Your task to perform on an android device: Open wifi settings Image 0: 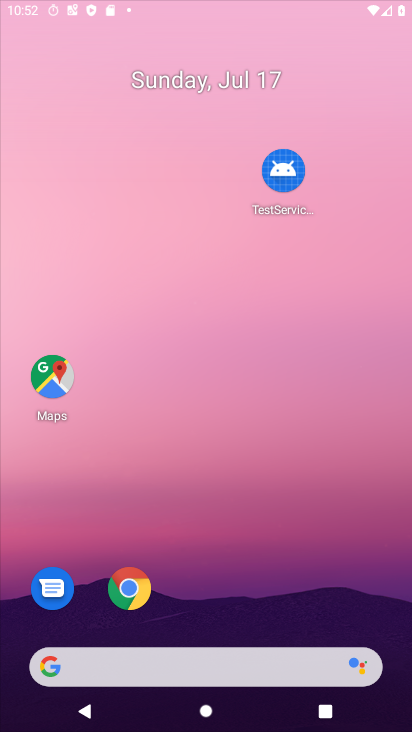
Step 0: press home button
Your task to perform on an android device: Open wifi settings Image 1: 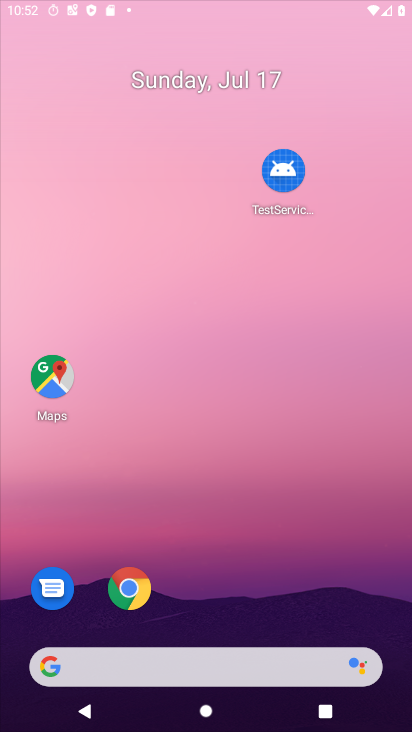
Step 1: click (245, 51)
Your task to perform on an android device: Open wifi settings Image 2: 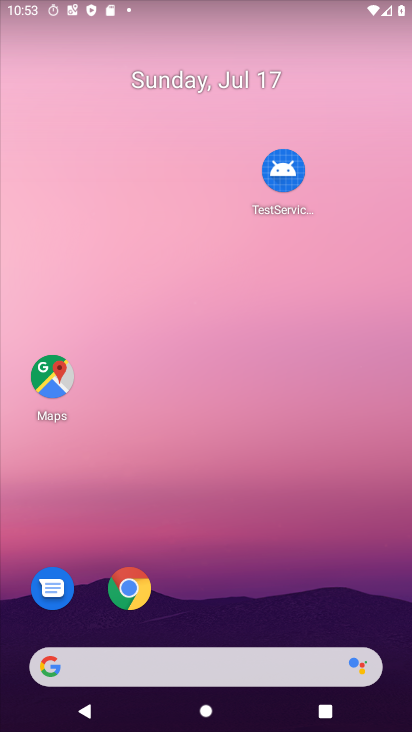
Step 2: drag from (241, 678) to (211, 2)
Your task to perform on an android device: Open wifi settings Image 3: 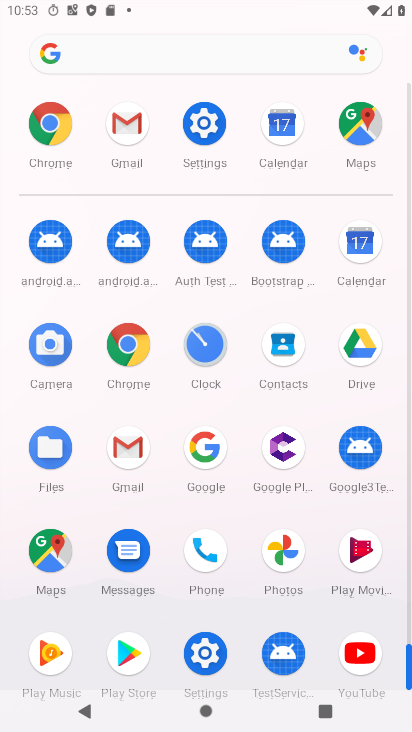
Step 3: click (212, 139)
Your task to perform on an android device: Open wifi settings Image 4: 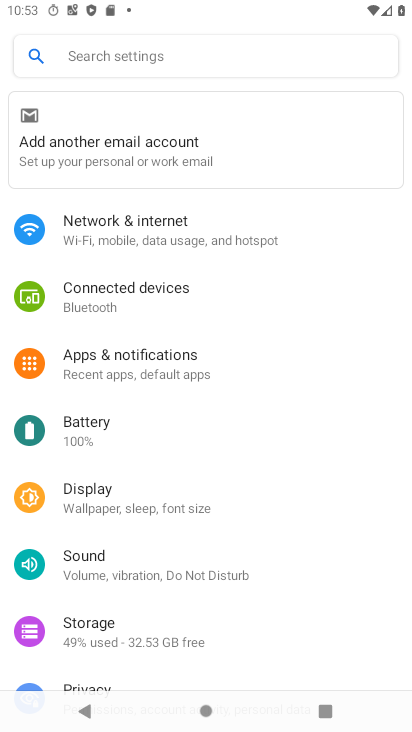
Step 4: click (161, 235)
Your task to perform on an android device: Open wifi settings Image 5: 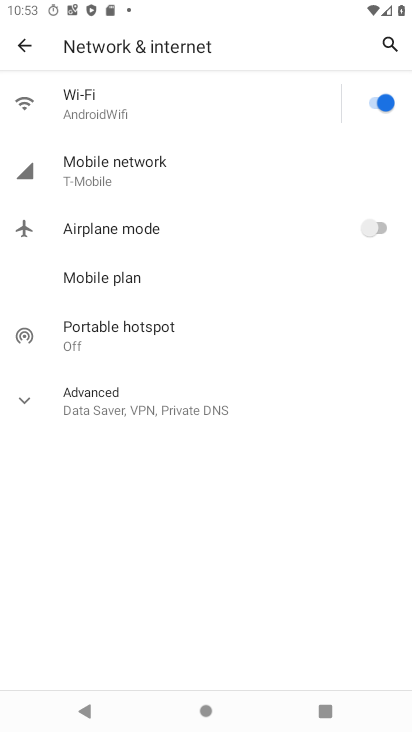
Step 5: click (165, 107)
Your task to perform on an android device: Open wifi settings Image 6: 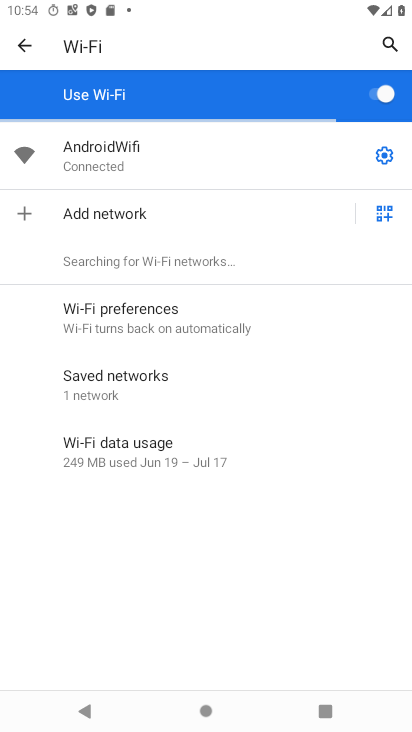
Step 6: task complete